Your task to perform on an android device: turn off notifications settings in the gmail app Image 0: 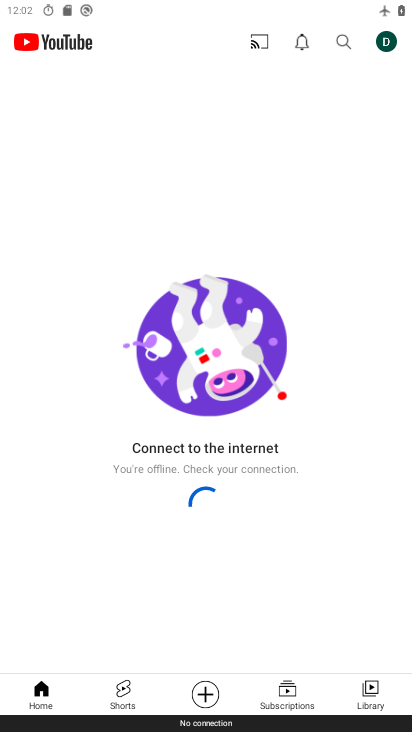
Step 0: press home button
Your task to perform on an android device: turn off notifications settings in the gmail app Image 1: 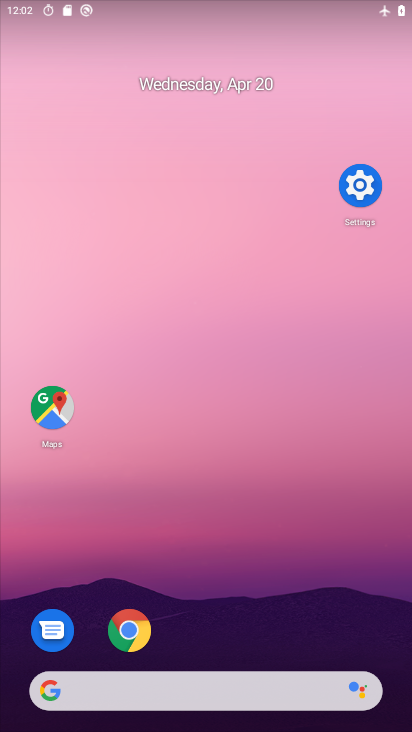
Step 1: drag from (78, 665) to (177, 108)
Your task to perform on an android device: turn off notifications settings in the gmail app Image 2: 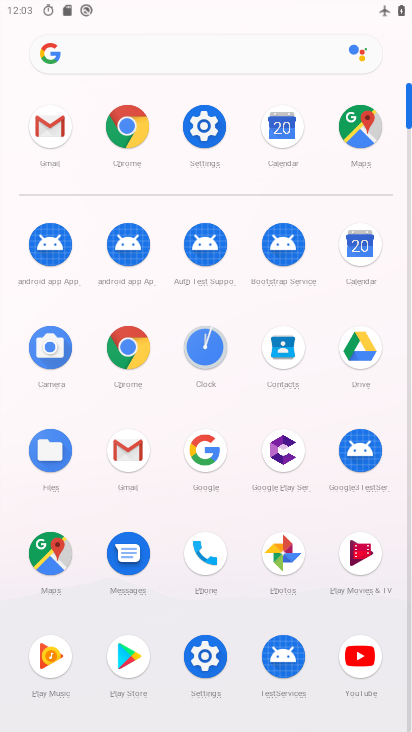
Step 2: click (126, 469)
Your task to perform on an android device: turn off notifications settings in the gmail app Image 3: 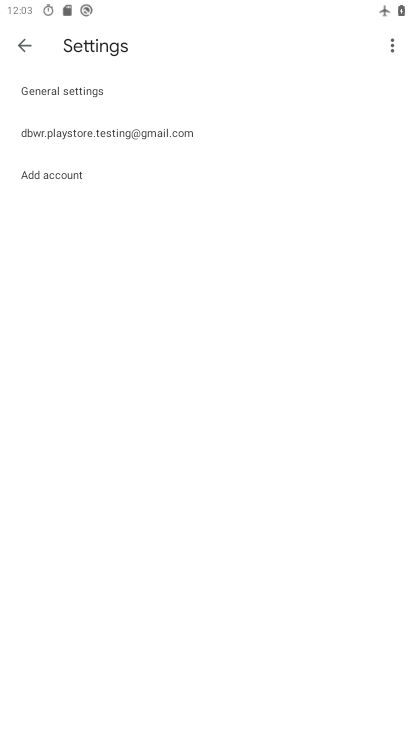
Step 3: click (120, 86)
Your task to perform on an android device: turn off notifications settings in the gmail app Image 4: 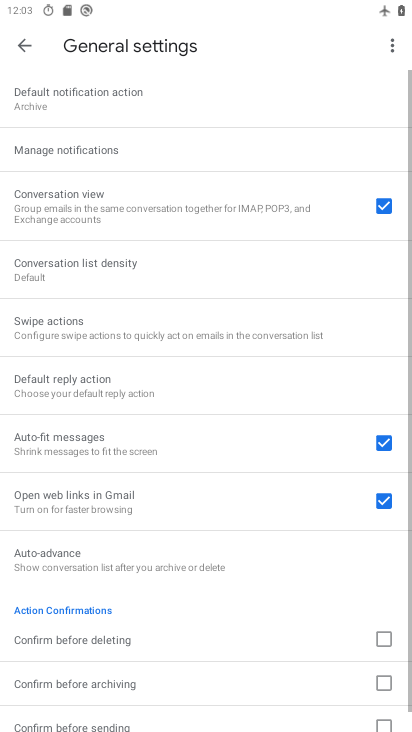
Step 4: click (119, 153)
Your task to perform on an android device: turn off notifications settings in the gmail app Image 5: 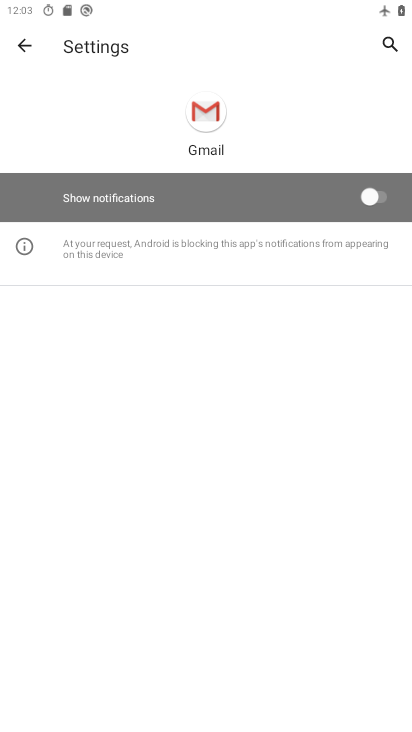
Step 5: task complete